Your task to perform on an android device: turn on sleep mode Image 0: 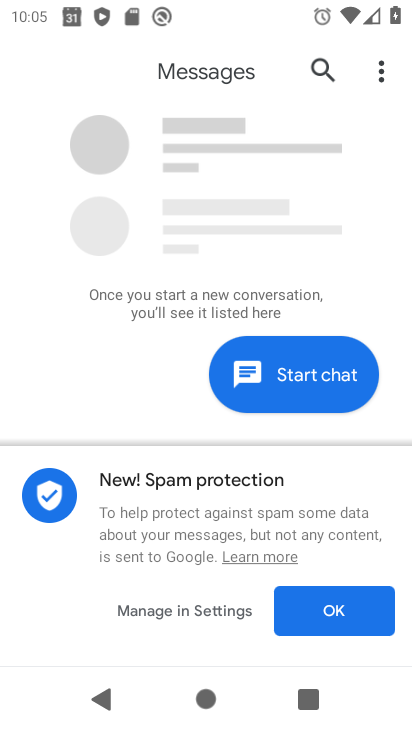
Step 0: drag from (219, 7) to (231, 594)
Your task to perform on an android device: turn on sleep mode Image 1: 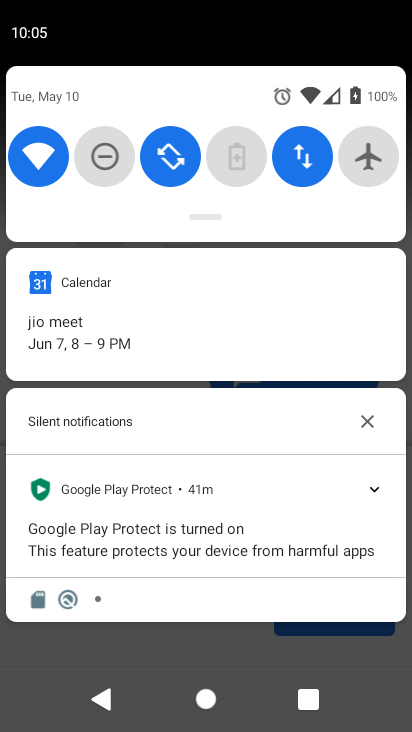
Step 1: drag from (227, 123) to (287, 596)
Your task to perform on an android device: turn on sleep mode Image 2: 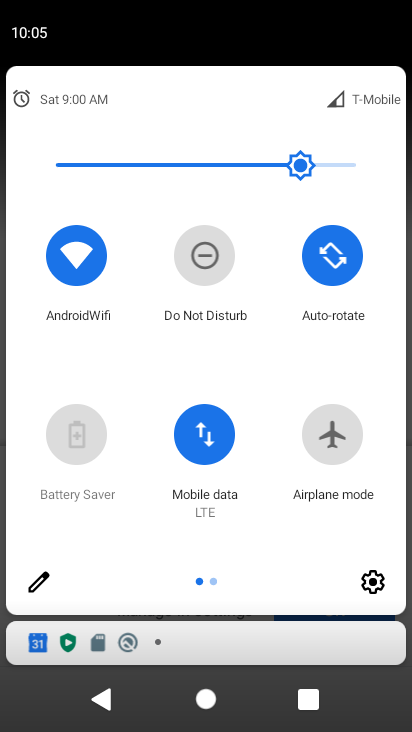
Step 2: click (381, 579)
Your task to perform on an android device: turn on sleep mode Image 3: 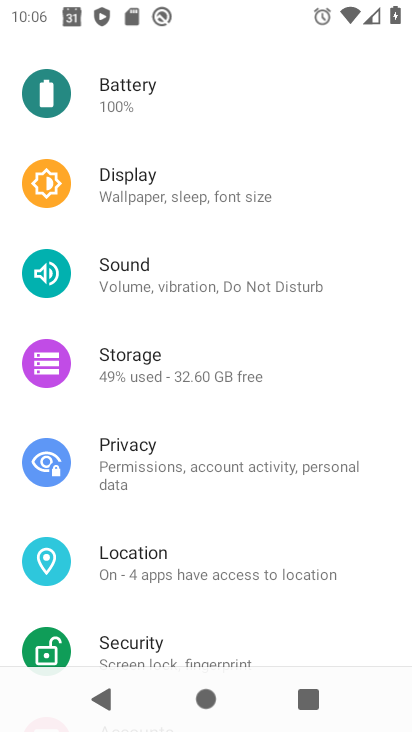
Step 3: task complete